Your task to perform on an android device: check out phone information Image 0: 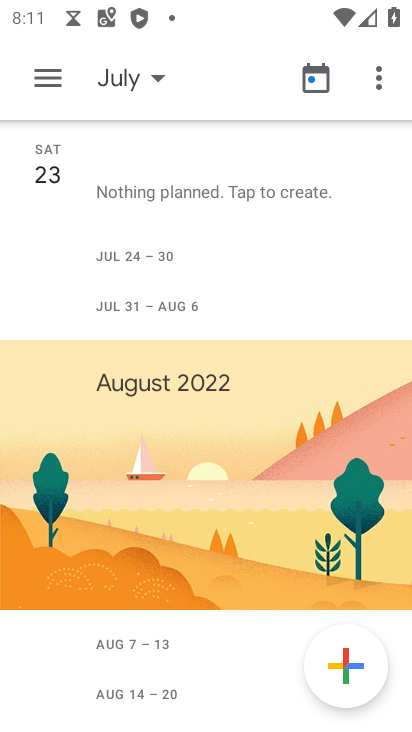
Step 0: press back button
Your task to perform on an android device: check out phone information Image 1: 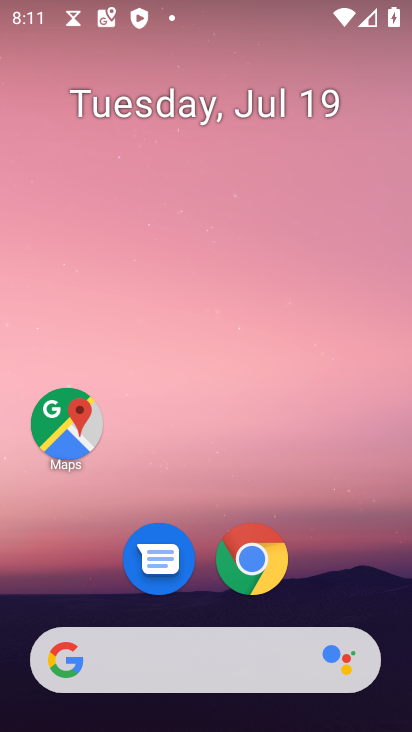
Step 1: drag from (174, 320) to (254, 6)
Your task to perform on an android device: check out phone information Image 2: 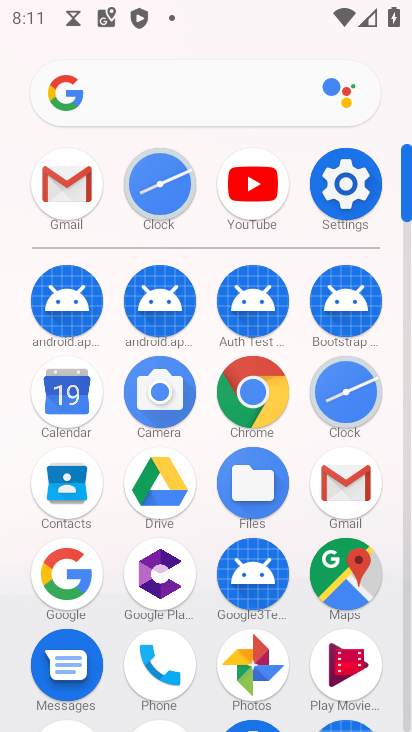
Step 2: click (349, 180)
Your task to perform on an android device: check out phone information Image 3: 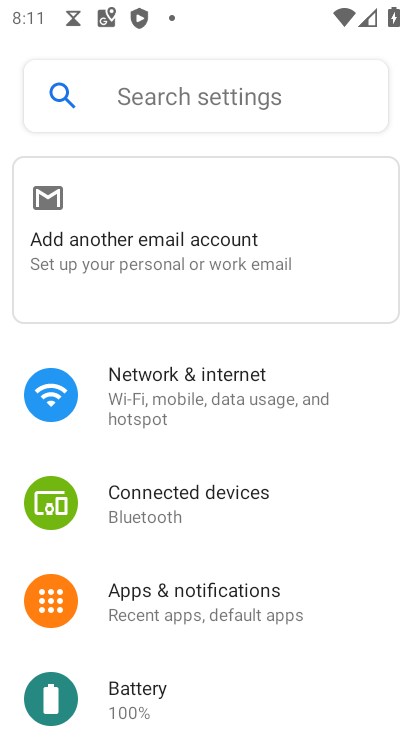
Step 3: drag from (215, 672) to (362, 6)
Your task to perform on an android device: check out phone information Image 4: 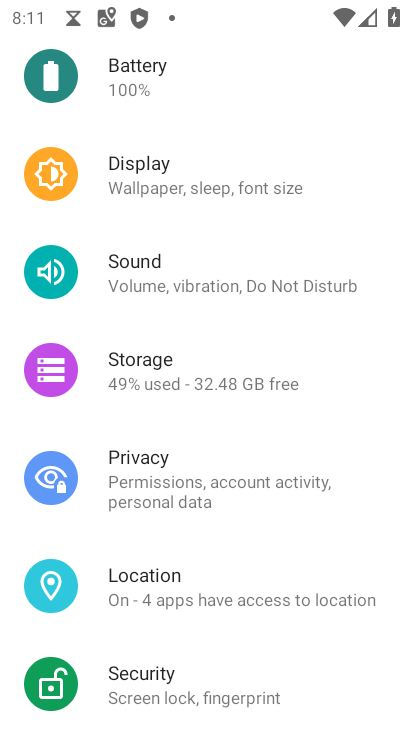
Step 4: drag from (137, 631) to (254, 28)
Your task to perform on an android device: check out phone information Image 5: 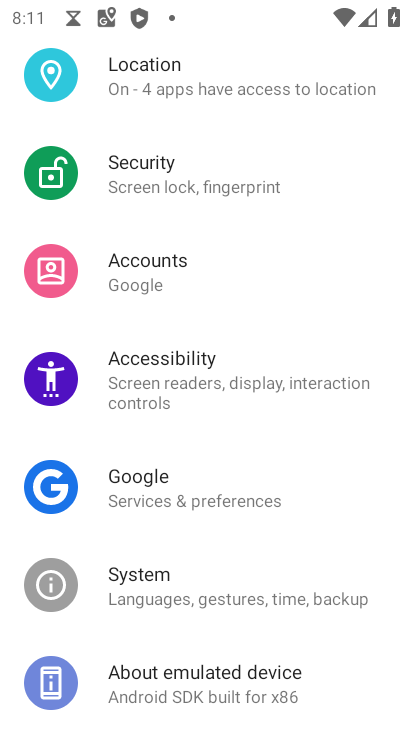
Step 5: drag from (151, 670) to (313, 4)
Your task to perform on an android device: check out phone information Image 6: 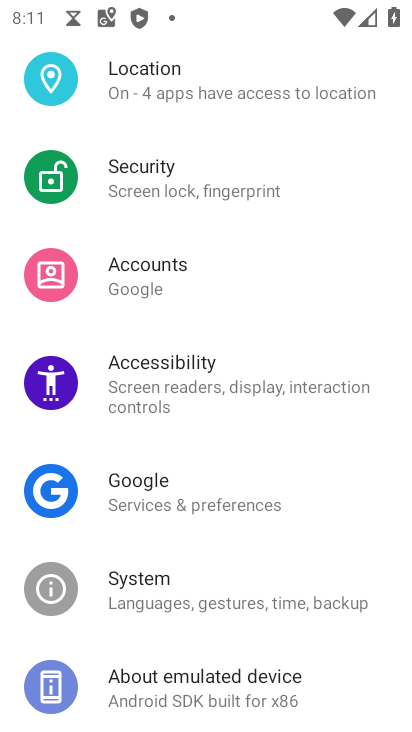
Step 6: click (205, 690)
Your task to perform on an android device: check out phone information Image 7: 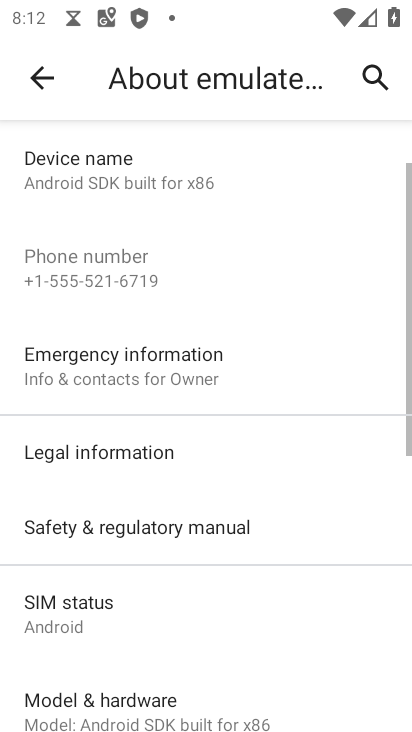
Step 7: task complete